Your task to perform on an android device: turn on priority inbox in the gmail app Image 0: 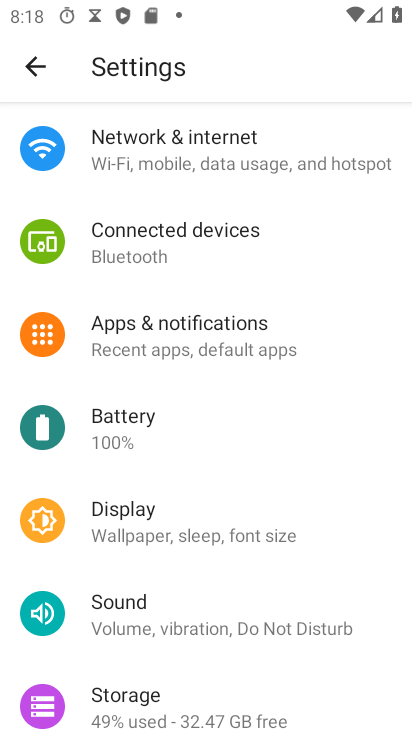
Step 0: press home button
Your task to perform on an android device: turn on priority inbox in the gmail app Image 1: 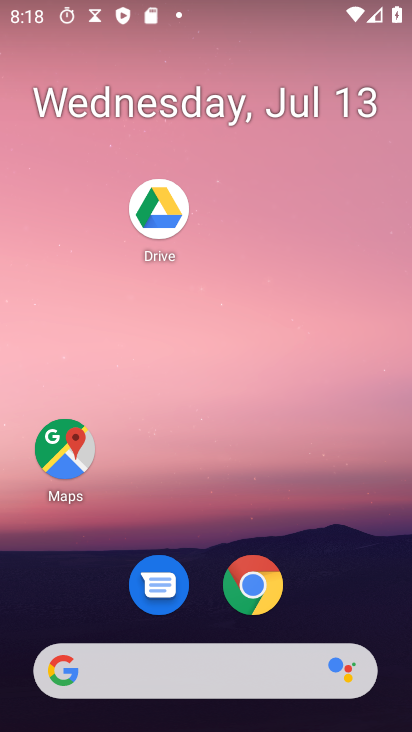
Step 1: drag from (169, 655) to (256, 213)
Your task to perform on an android device: turn on priority inbox in the gmail app Image 2: 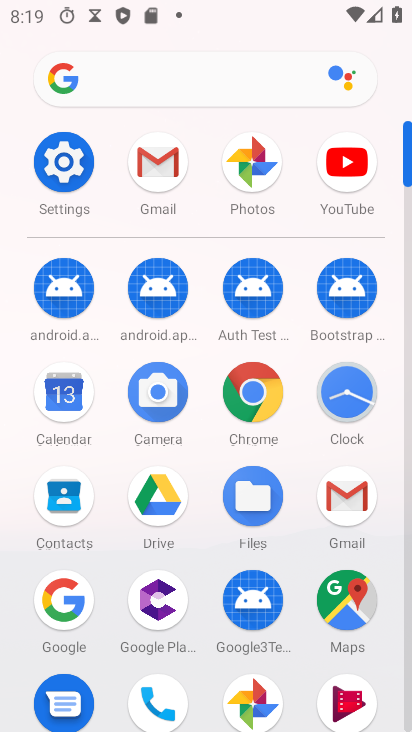
Step 2: click (152, 163)
Your task to perform on an android device: turn on priority inbox in the gmail app Image 3: 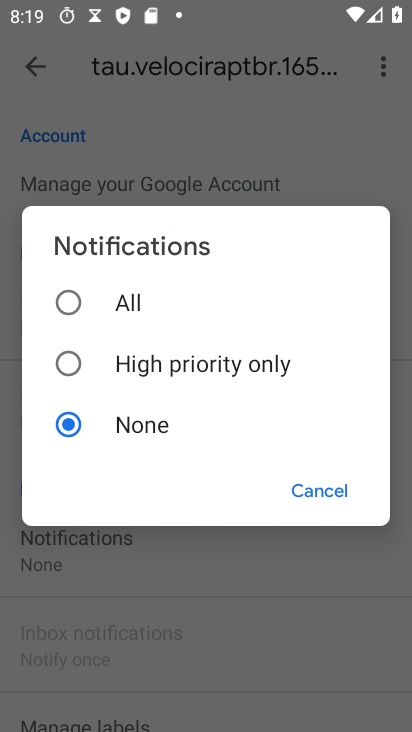
Step 3: click (325, 495)
Your task to perform on an android device: turn on priority inbox in the gmail app Image 4: 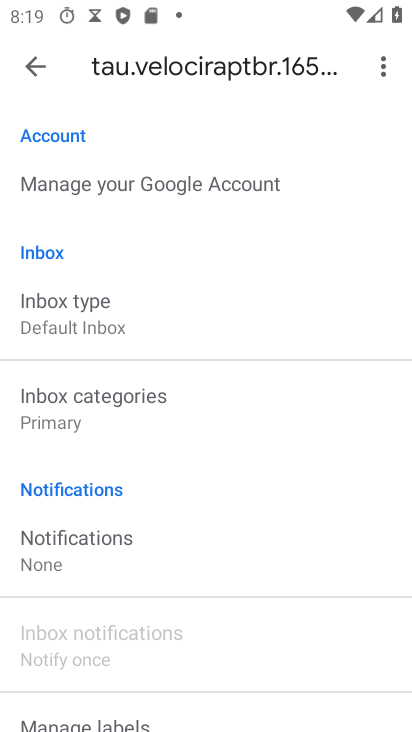
Step 4: click (84, 307)
Your task to perform on an android device: turn on priority inbox in the gmail app Image 5: 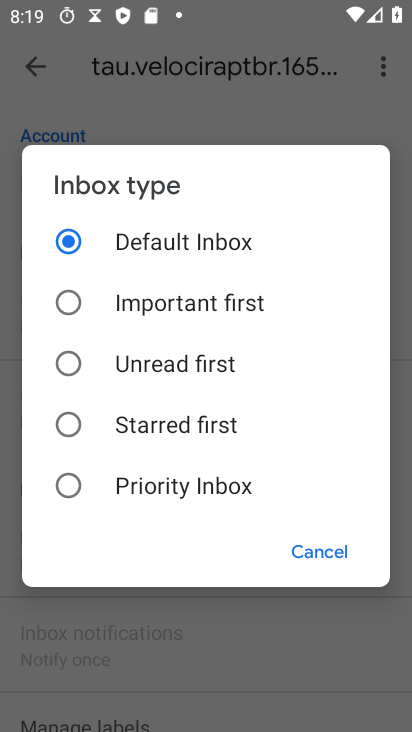
Step 5: click (67, 487)
Your task to perform on an android device: turn on priority inbox in the gmail app Image 6: 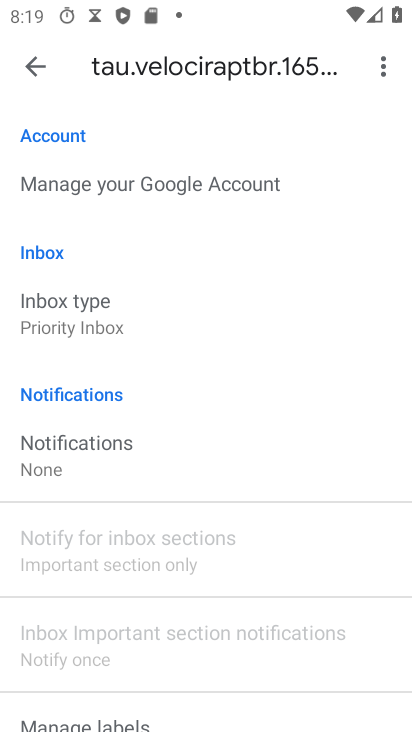
Step 6: task complete